Your task to perform on an android device: turn off translation in the chrome app Image 0: 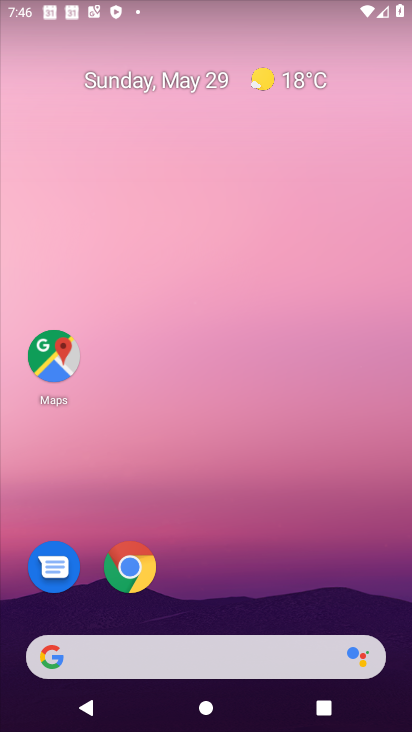
Step 0: click (133, 567)
Your task to perform on an android device: turn off translation in the chrome app Image 1: 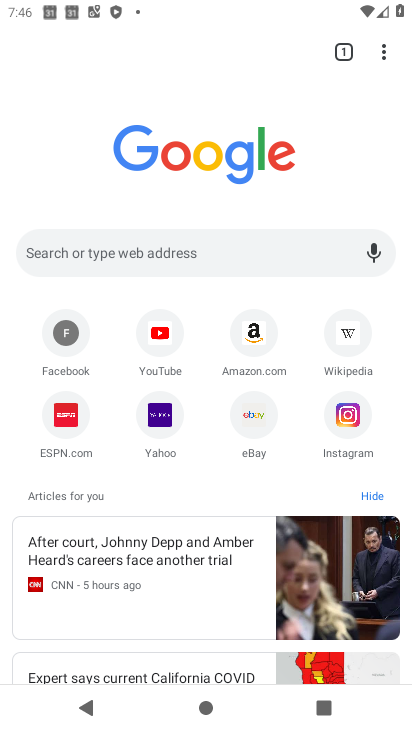
Step 1: click (384, 52)
Your task to perform on an android device: turn off translation in the chrome app Image 2: 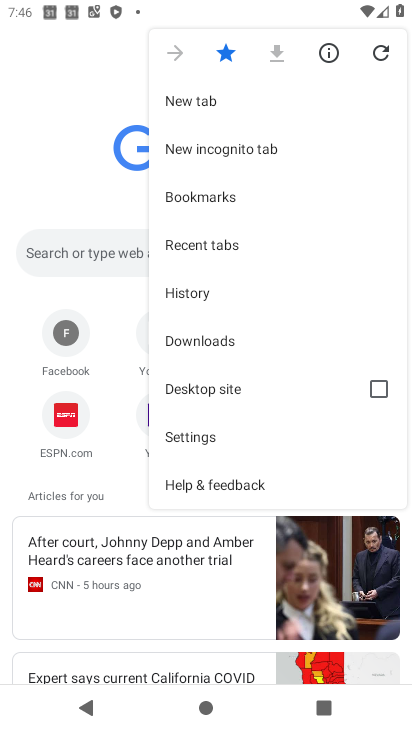
Step 2: click (196, 435)
Your task to perform on an android device: turn off translation in the chrome app Image 3: 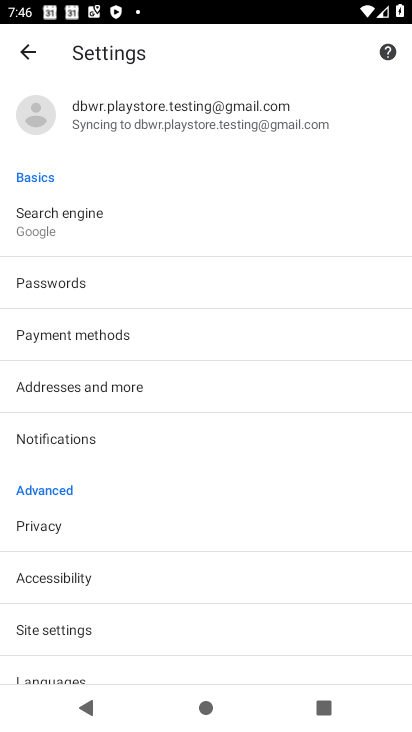
Step 3: drag from (120, 509) to (193, 399)
Your task to perform on an android device: turn off translation in the chrome app Image 4: 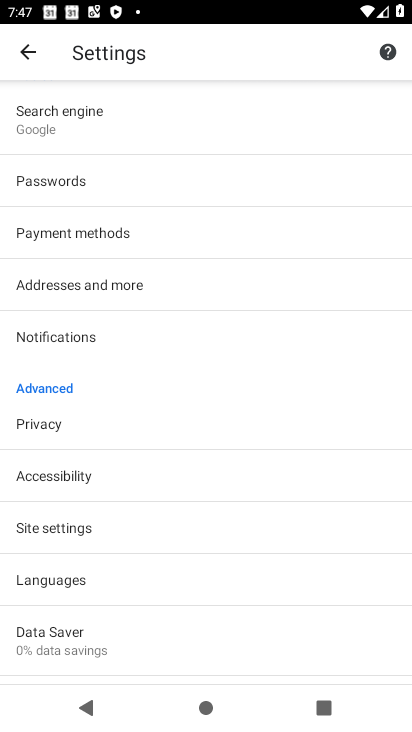
Step 4: click (69, 580)
Your task to perform on an android device: turn off translation in the chrome app Image 5: 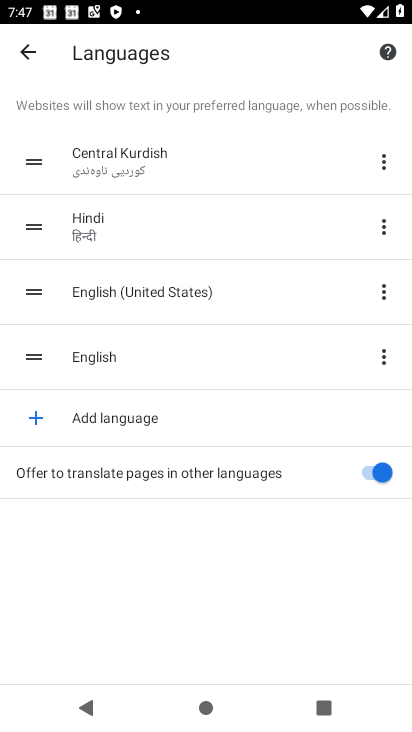
Step 5: click (378, 476)
Your task to perform on an android device: turn off translation in the chrome app Image 6: 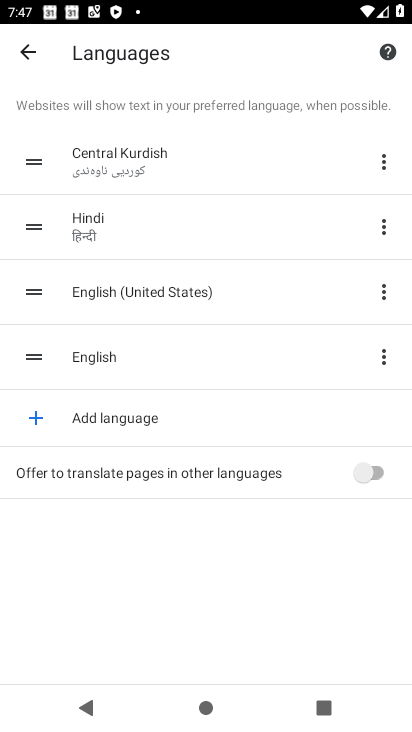
Step 6: task complete